Your task to perform on an android device: turn vacation reply on in the gmail app Image 0: 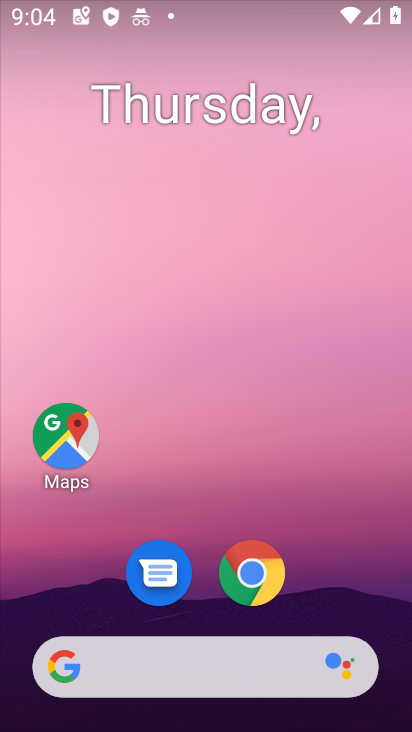
Step 0: drag from (357, 588) to (309, 226)
Your task to perform on an android device: turn vacation reply on in the gmail app Image 1: 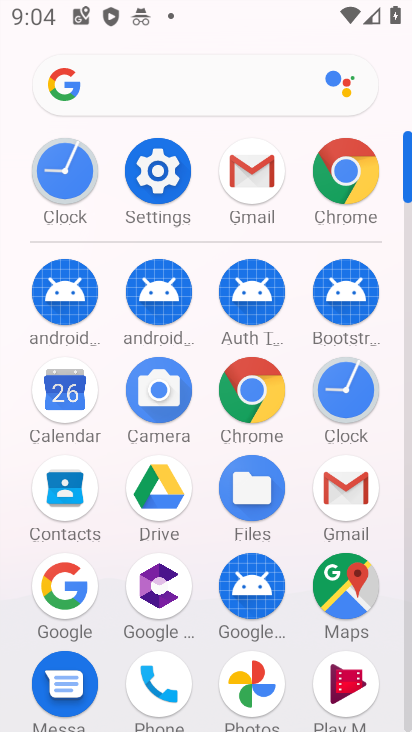
Step 1: click (335, 483)
Your task to perform on an android device: turn vacation reply on in the gmail app Image 2: 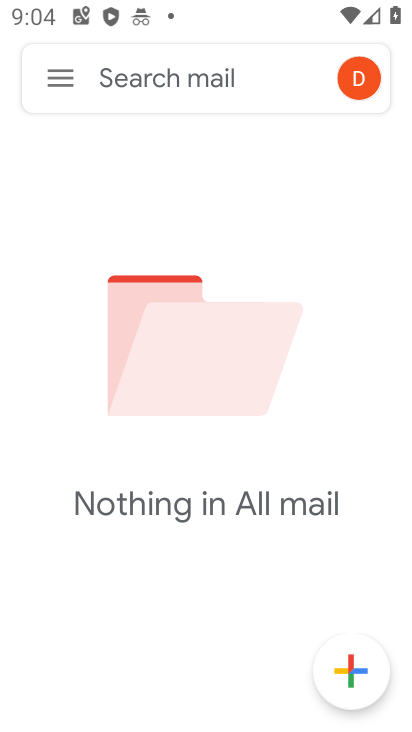
Step 2: click (52, 89)
Your task to perform on an android device: turn vacation reply on in the gmail app Image 3: 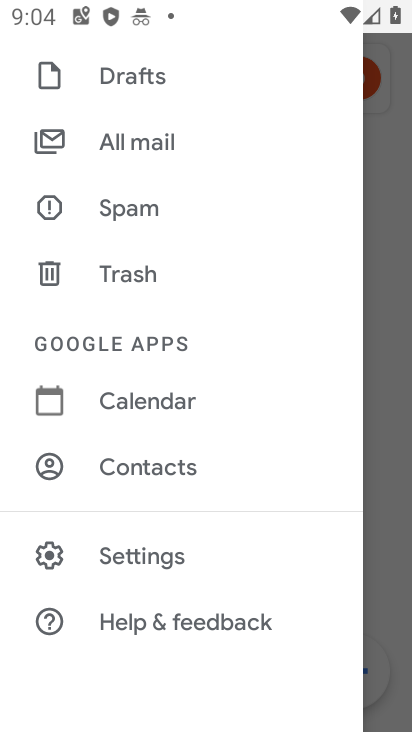
Step 3: click (180, 557)
Your task to perform on an android device: turn vacation reply on in the gmail app Image 4: 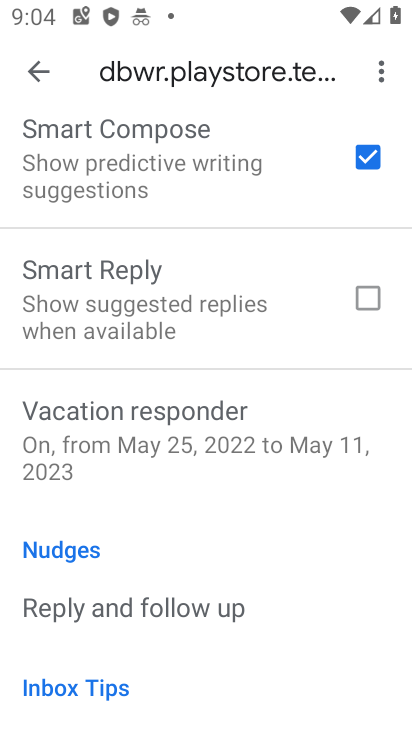
Step 4: click (187, 434)
Your task to perform on an android device: turn vacation reply on in the gmail app Image 5: 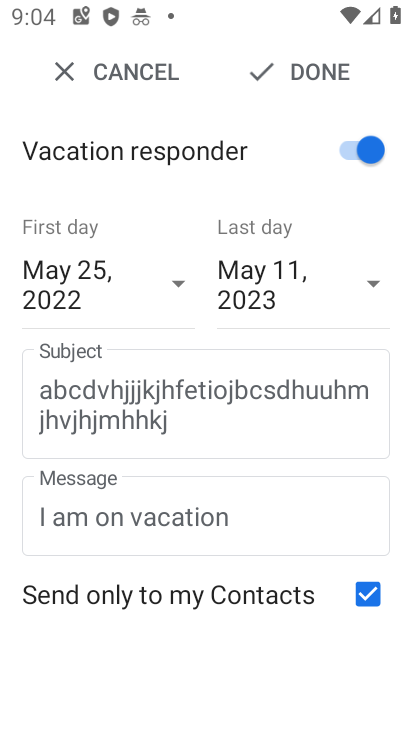
Step 5: task complete